Your task to perform on an android device: What's the weather? Image 0: 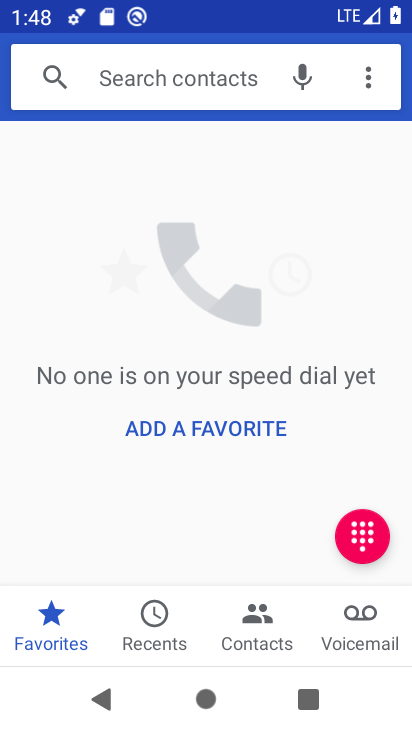
Step 0: press home button
Your task to perform on an android device: What's the weather? Image 1: 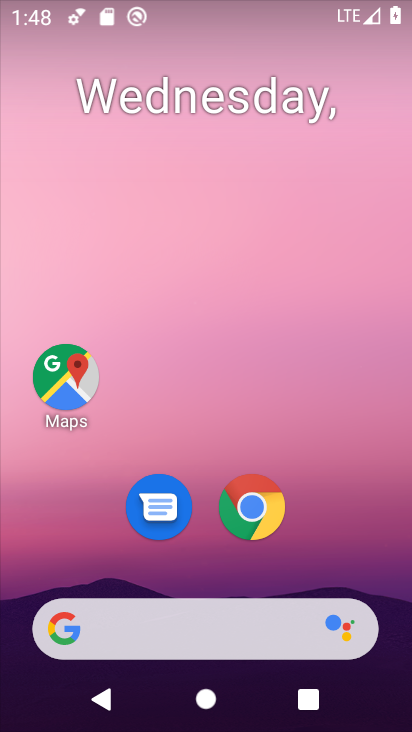
Step 1: click (174, 632)
Your task to perform on an android device: What's the weather? Image 2: 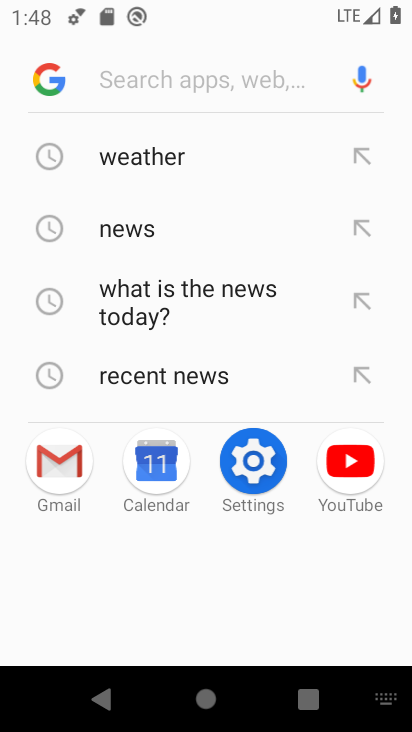
Step 2: type "what's the weather"
Your task to perform on an android device: What's the weather? Image 3: 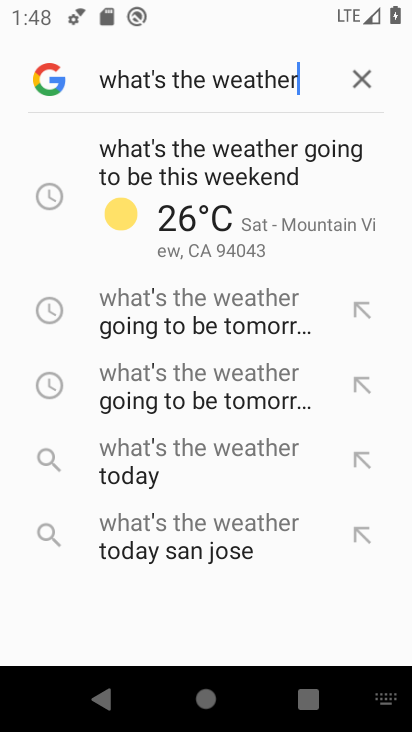
Step 3: click (192, 459)
Your task to perform on an android device: What's the weather? Image 4: 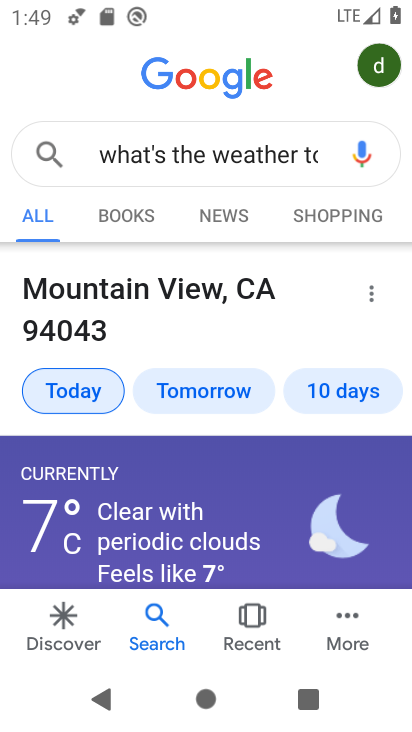
Step 4: task complete